Your task to perform on an android device: turn on translation in the chrome app Image 0: 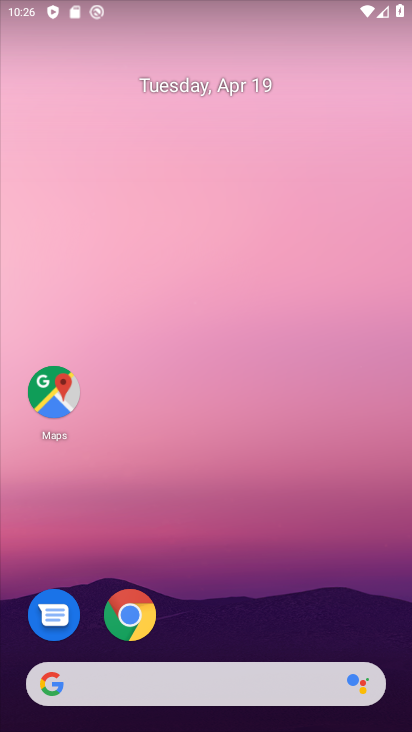
Step 0: click (131, 611)
Your task to perform on an android device: turn on translation in the chrome app Image 1: 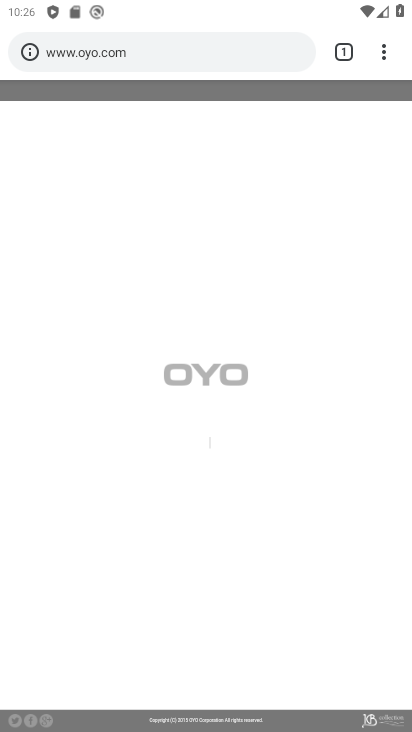
Step 1: click (381, 52)
Your task to perform on an android device: turn on translation in the chrome app Image 2: 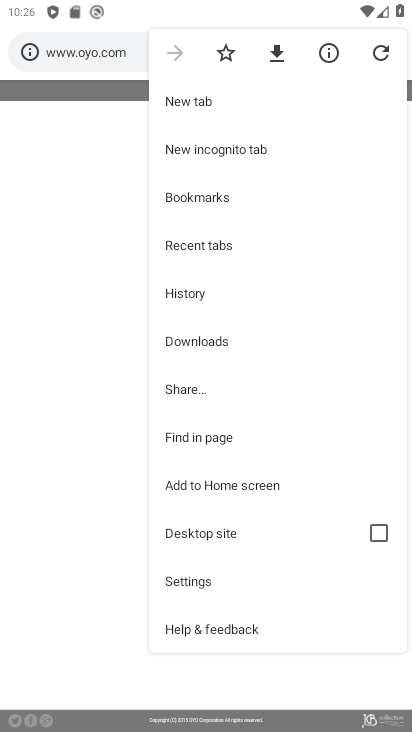
Step 2: click (228, 581)
Your task to perform on an android device: turn on translation in the chrome app Image 3: 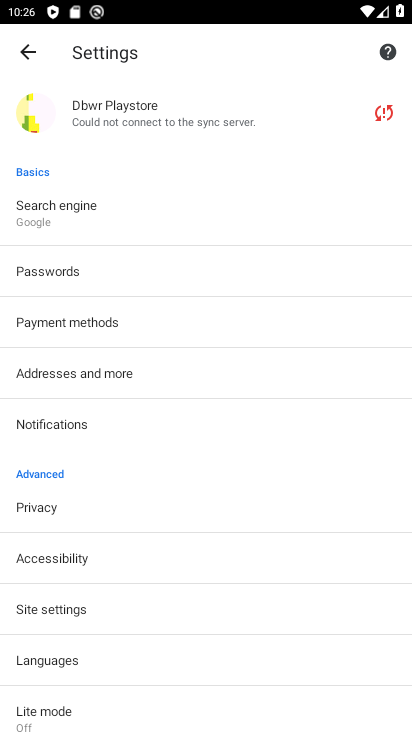
Step 3: click (80, 658)
Your task to perform on an android device: turn on translation in the chrome app Image 4: 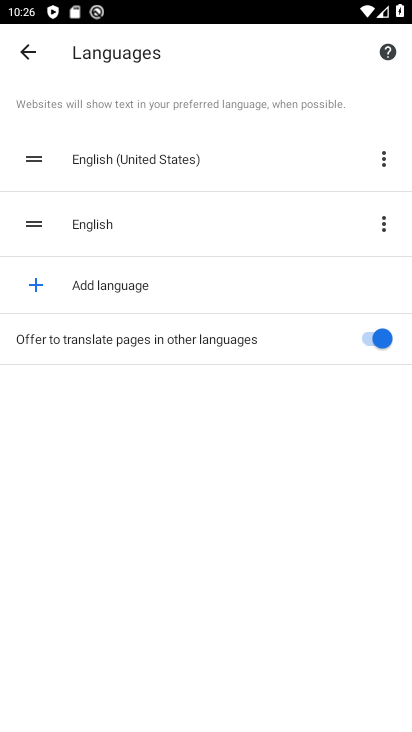
Step 4: task complete